Your task to perform on an android device: turn off data saver in the chrome app Image 0: 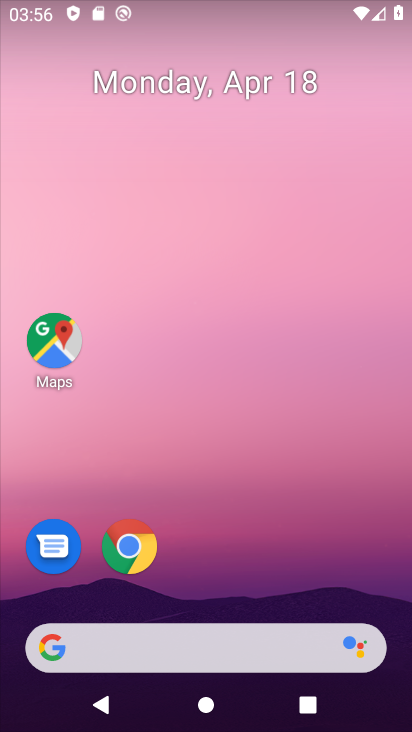
Step 0: drag from (295, 474) to (274, 161)
Your task to perform on an android device: turn off data saver in the chrome app Image 1: 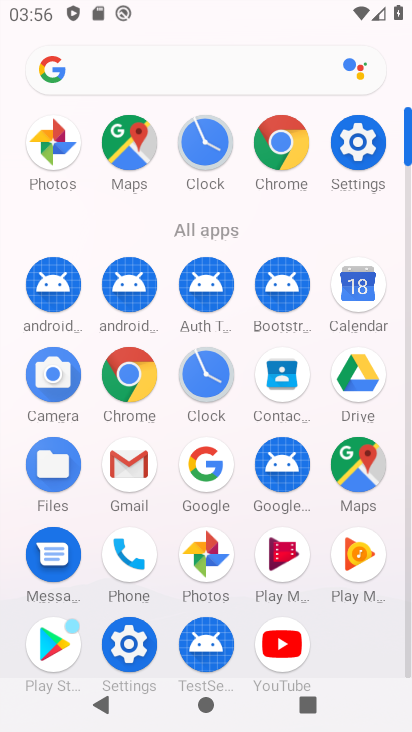
Step 1: click (284, 137)
Your task to perform on an android device: turn off data saver in the chrome app Image 2: 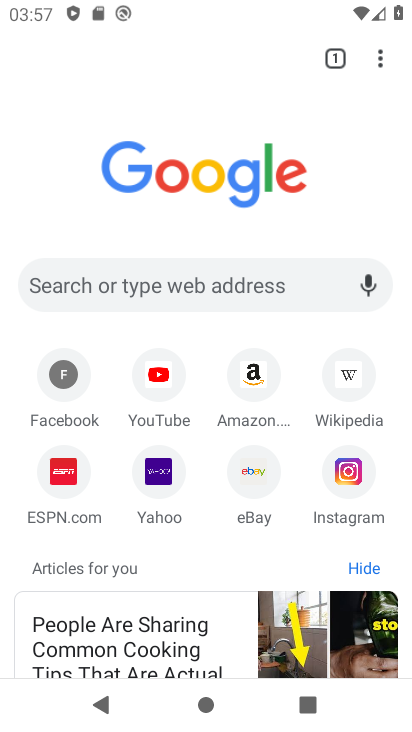
Step 2: click (383, 56)
Your task to perform on an android device: turn off data saver in the chrome app Image 3: 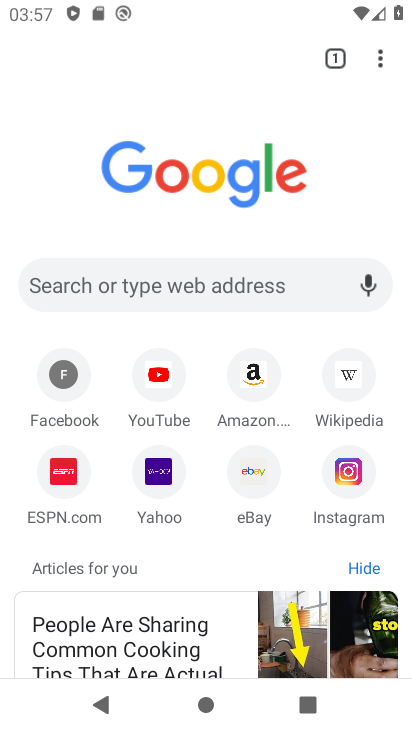
Step 3: click (376, 54)
Your task to perform on an android device: turn off data saver in the chrome app Image 4: 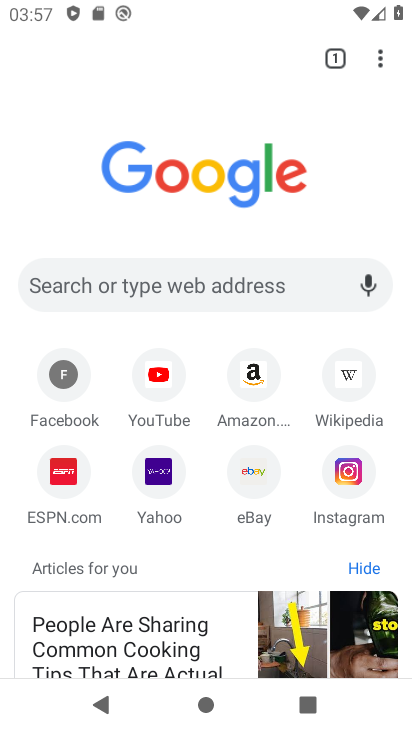
Step 4: click (376, 54)
Your task to perform on an android device: turn off data saver in the chrome app Image 5: 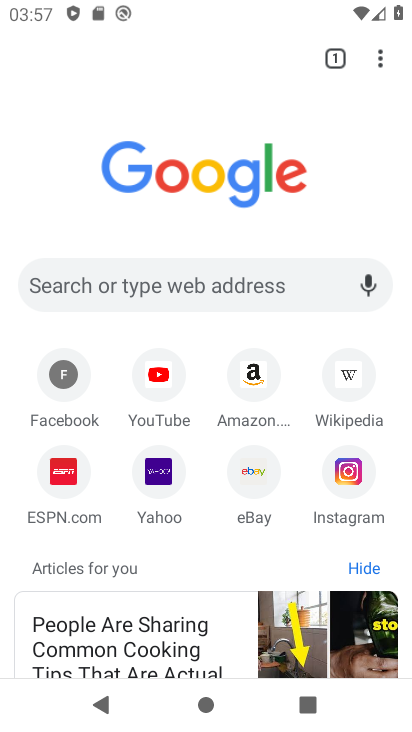
Step 5: click (368, 60)
Your task to perform on an android device: turn off data saver in the chrome app Image 6: 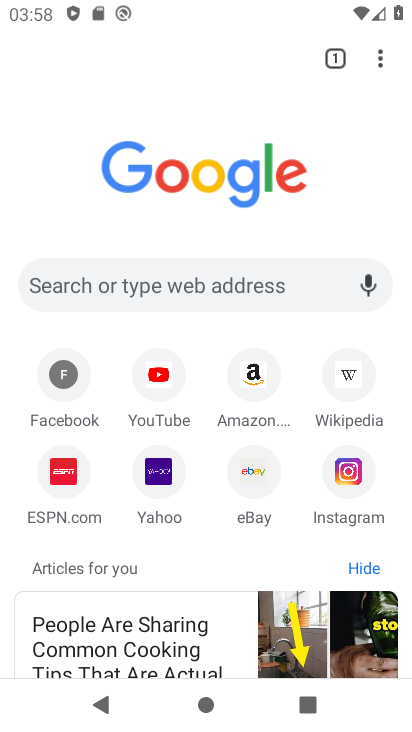
Step 6: click (378, 59)
Your task to perform on an android device: turn off data saver in the chrome app Image 7: 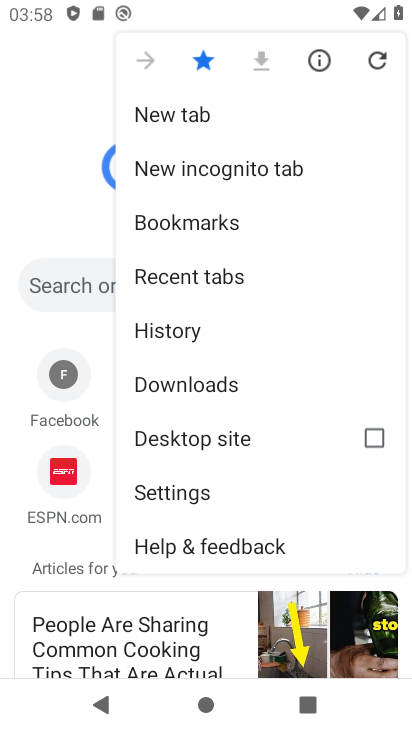
Step 7: click (182, 484)
Your task to perform on an android device: turn off data saver in the chrome app Image 8: 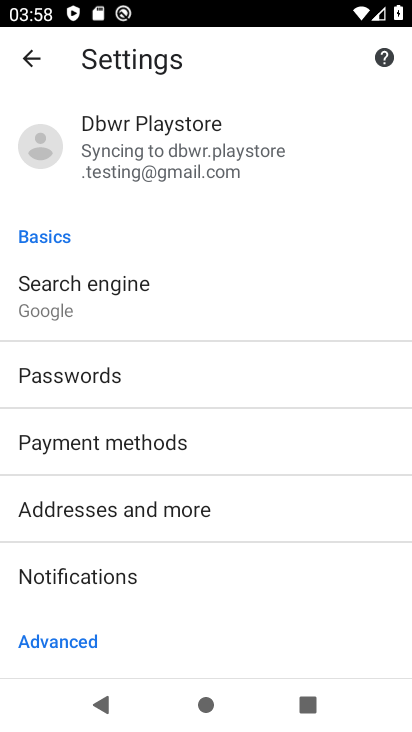
Step 8: drag from (216, 596) to (236, 183)
Your task to perform on an android device: turn off data saver in the chrome app Image 9: 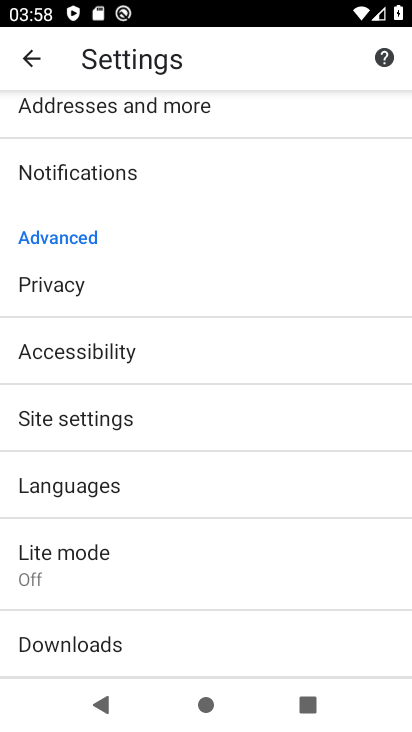
Step 9: click (139, 542)
Your task to perform on an android device: turn off data saver in the chrome app Image 10: 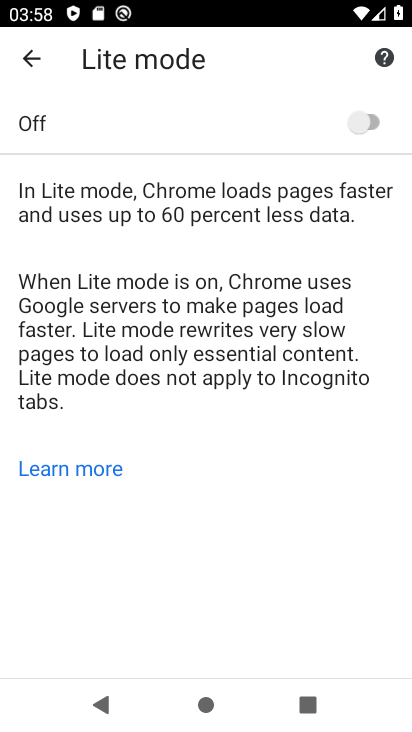
Step 10: task complete